Your task to perform on an android device: turn off sleep mode Image 0: 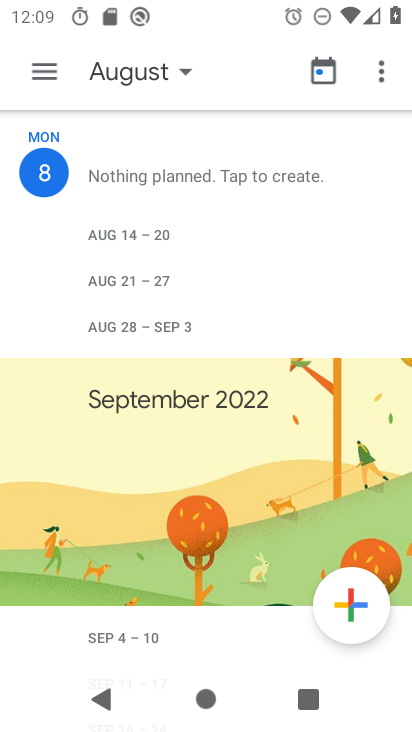
Step 0: press home button
Your task to perform on an android device: turn off sleep mode Image 1: 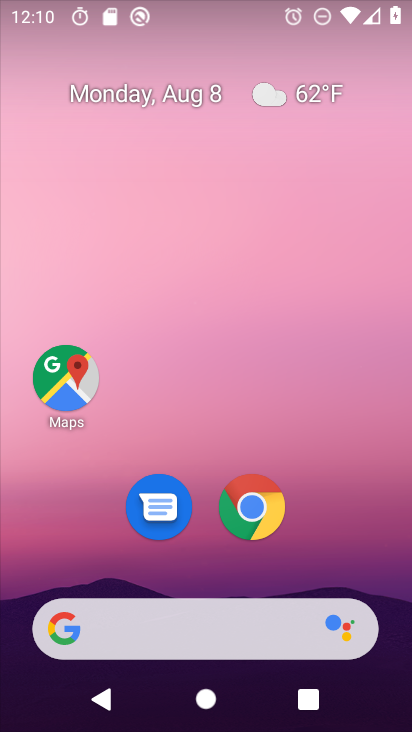
Step 1: drag from (334, 489) to (283, 42)
Your task to perform on an android device: turn off sleep mode Image 2: 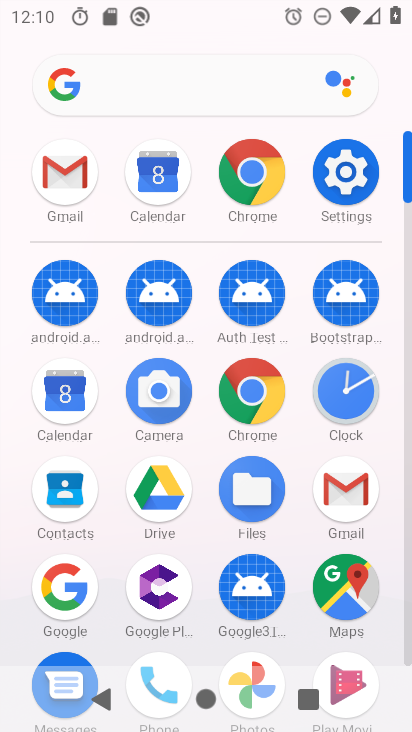
Step 2: click (366, 169)
Your task to perform on an android device: turn off sleep mode Image 3: 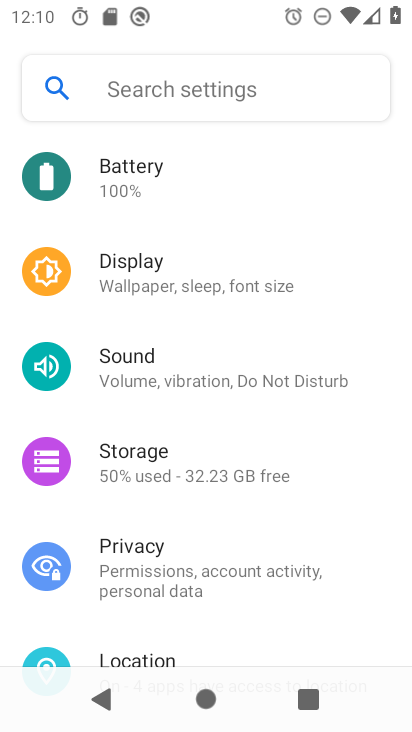
Step 3: click (207, 277)
Your task to perform on an android device: turn off sleep mode Image 4: 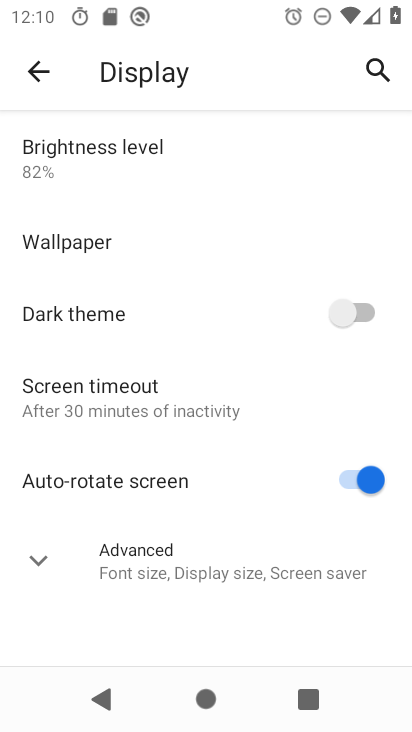
Step 4: click (109, 387)
Your task to perform on an android device: turn off sleep mode Image 5: 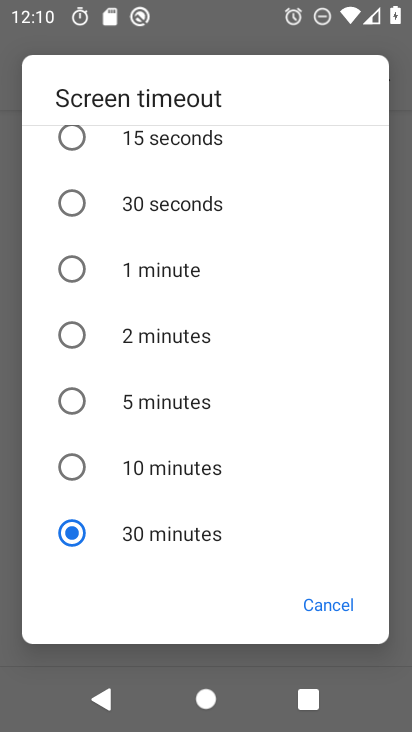
Step 5: task complete